Your task to perform on an android device: Open Wikipedia Image 0: 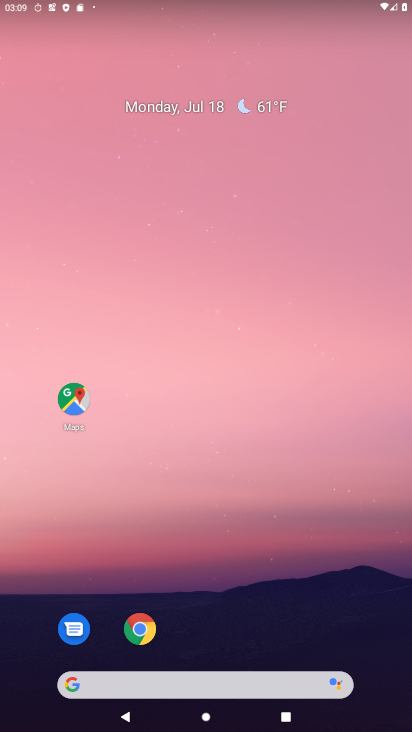
Step 0: click (140, 629)
Your task to perform on an android device: Open Wikipedia Image 1: 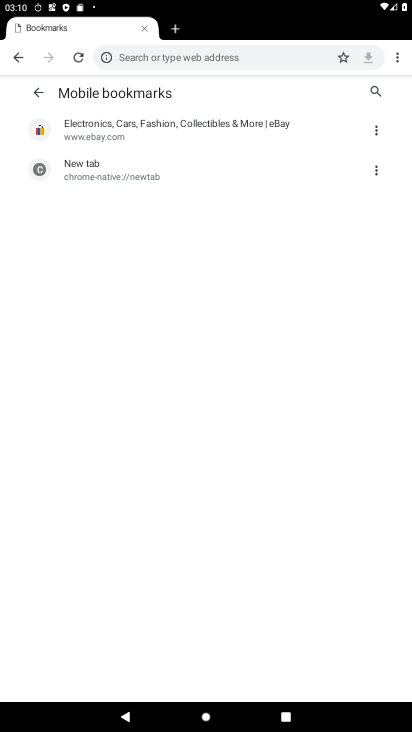
Step 1: click (291, 58)
Your task to perform on an android device: Open Wikipedia Image 2: 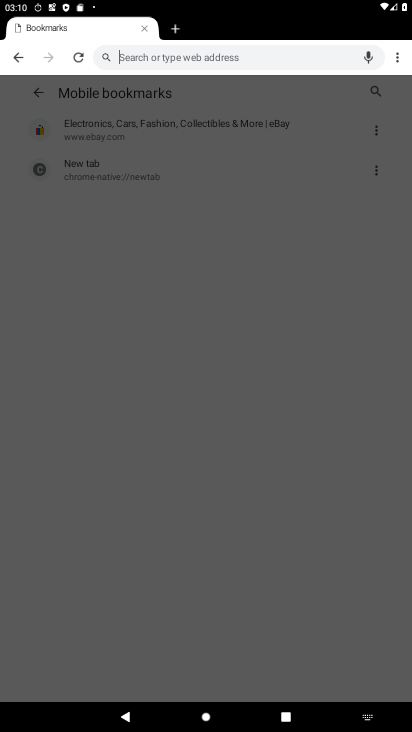
Step 2: type "Wikipedia"
Your task to perform on an android device: Open Wikipedia Image 3: 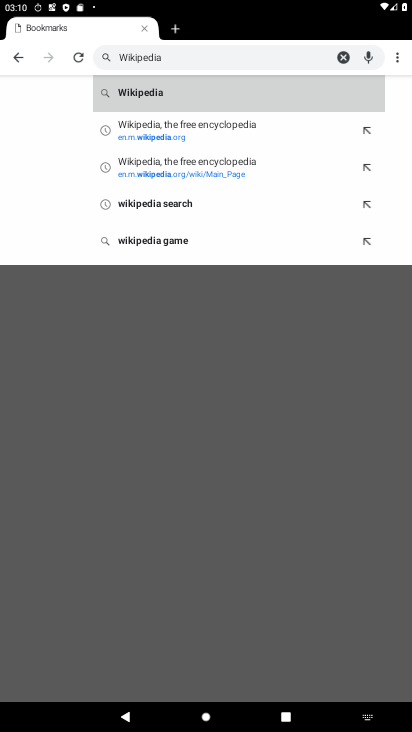
Step 3: click (143, 90)
Your task to perform on an android device: Open Wikipedia Image 4: 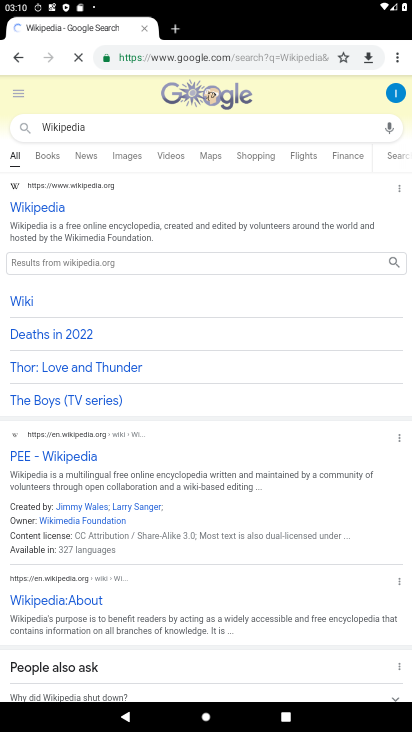
Step 4: click (46, 218)
Your task to perform on an android device: Open Wikipedia Image 5: 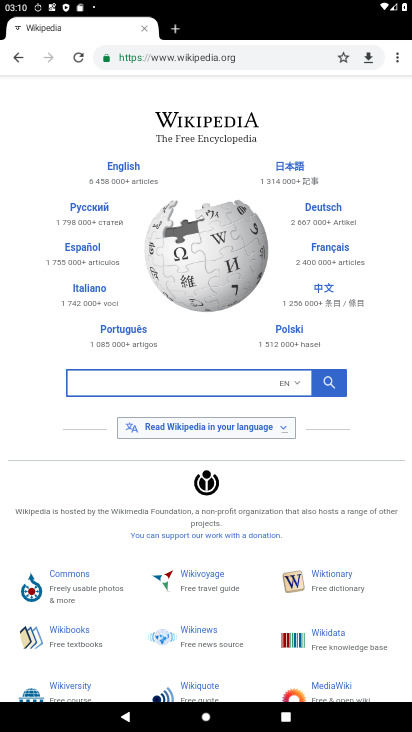
Step 5: task complete